Your task to perform on an android device: toggle priority inbox in the gmail app Image 0: 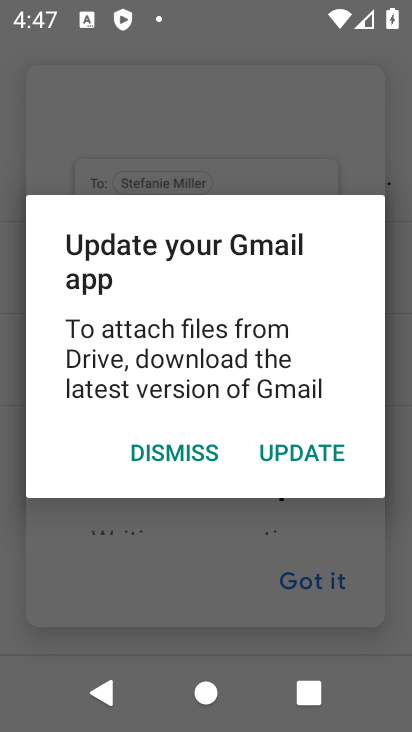
Step 0: press home button
Your task to perform on an android device: toggle priority inbox in the gmail app Image 1: 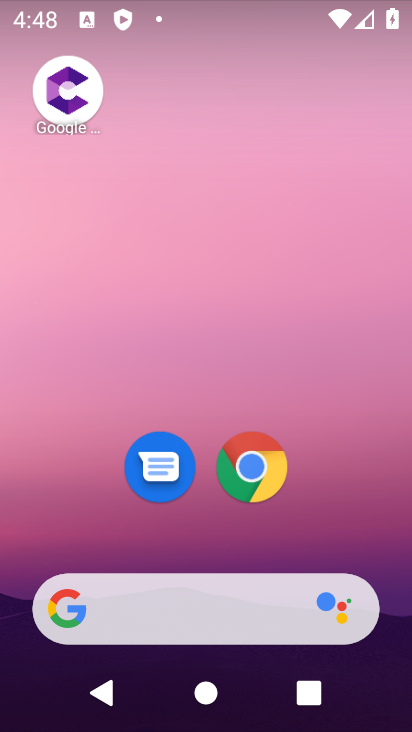
Step 1: drag from (221, 516) to (230, 54)
Your task to perform on an android device: toggle priority inbox in the gmail app Image 2: 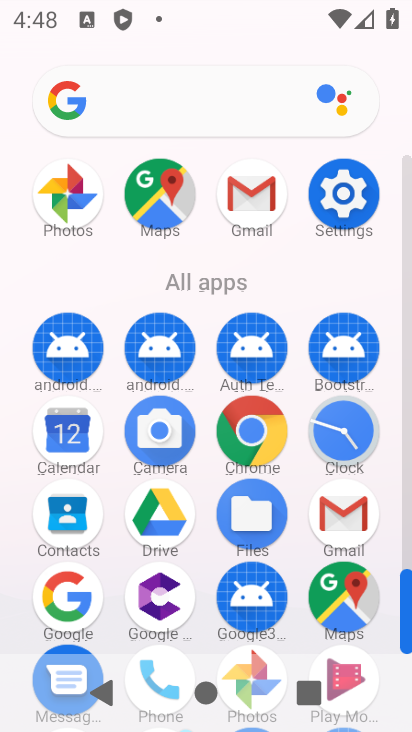
Step 2: click (335, 527)
Your task to perform on an android device: toggle priority inbox in the gmail app Image 3: 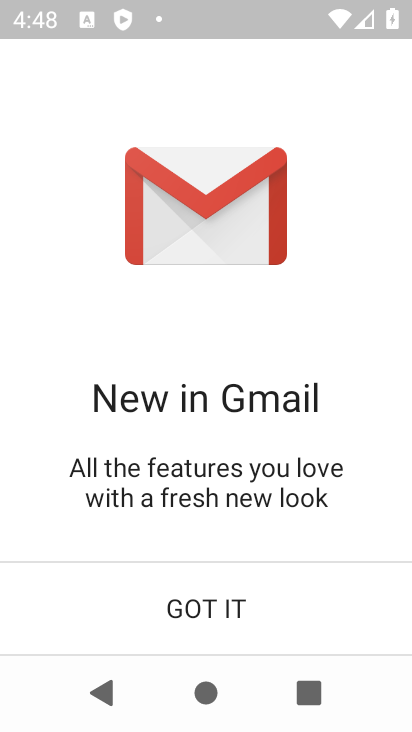
Step 3: click (248, 609)
Your task to perform on an android device: toggle priority inbox in the gmail app Image 4: 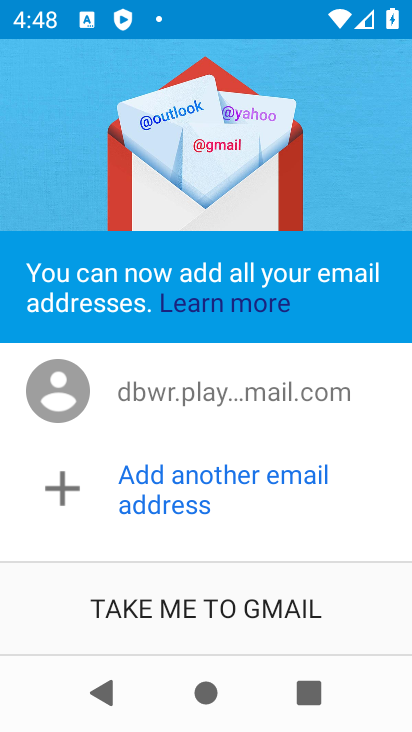
Step 4: click (260, 604)
Your task to perform on an android device: toggle priority inbox in the gmail app Image 5: 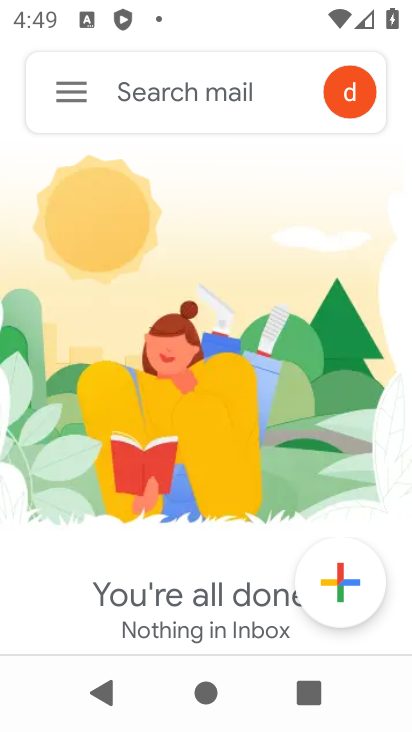
Step 5: click (68, 96)
Your task to perform on an android device: toggle priority inbox in the gmail app Image 6: 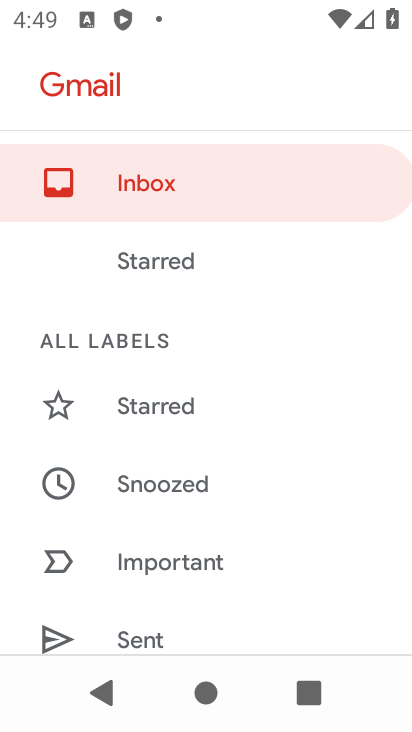
Step 6: drag from (170, 718) to (294, 120)
Your task to perform on an android device: toggle priority inbox in the gmail app Image 7: 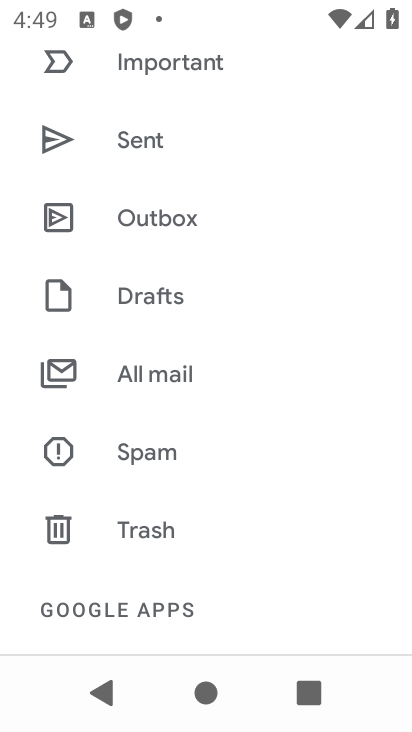
Step 7: drag from (247, 544) to (349, 155)
Your task to perform on an android device: toggle priority inbox in the gmail app Image 8: 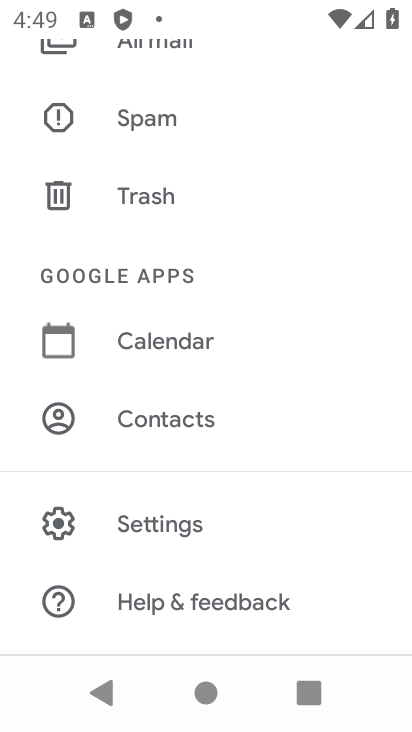
Step 8: click (157, 525)
Your task to perform on an android device: toggle priority inbox in the gmail app Image 9: 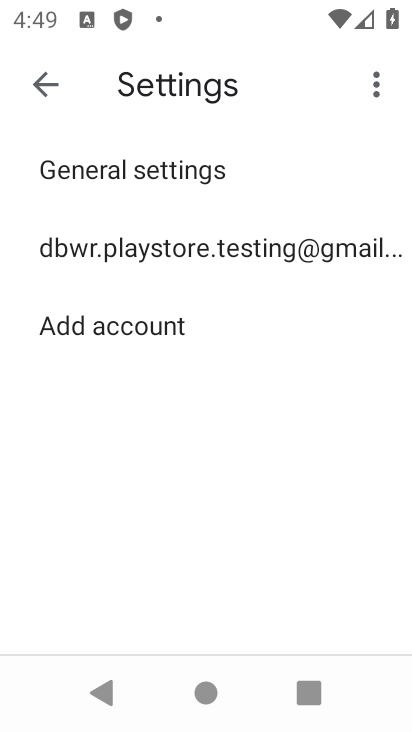
Step 9: click (191, 253)
Your task to perform on an android device: toggle priority inbox in the gmail app Image 10: 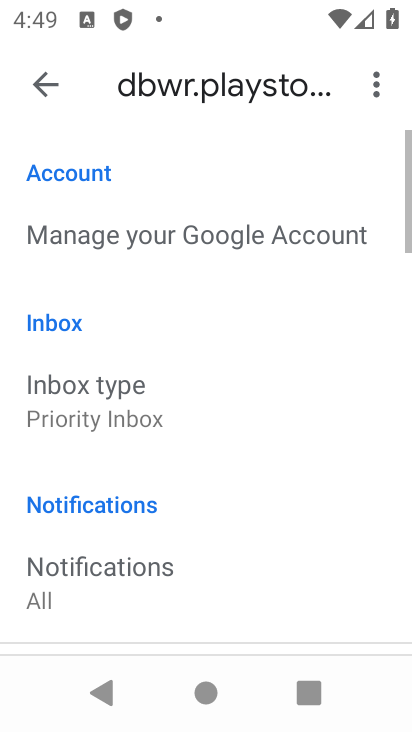
Step 10: drag from (205, 575) to (205, 402)
Your task to perform on an android device: toggle priority inbox in the gmail app Image 11: 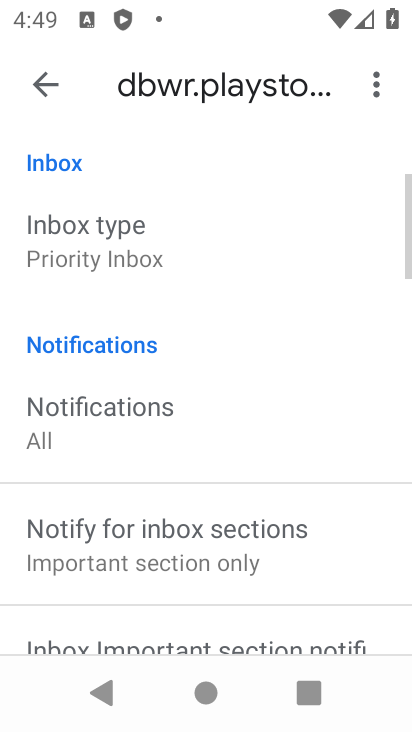
Step 11: click (211, 287)
Your task to perform on an android device: toggle priority inbox in the gmail app Image 12: 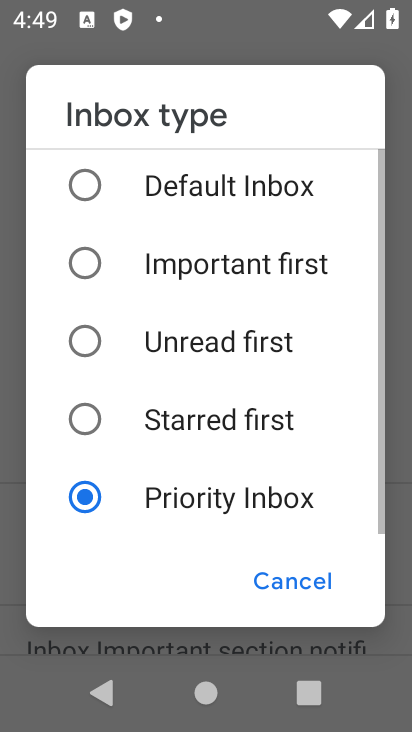
Step 12: click (138, 266)
Your task to perform on an android device: toggle priority inbox in the gmail app Image 13: 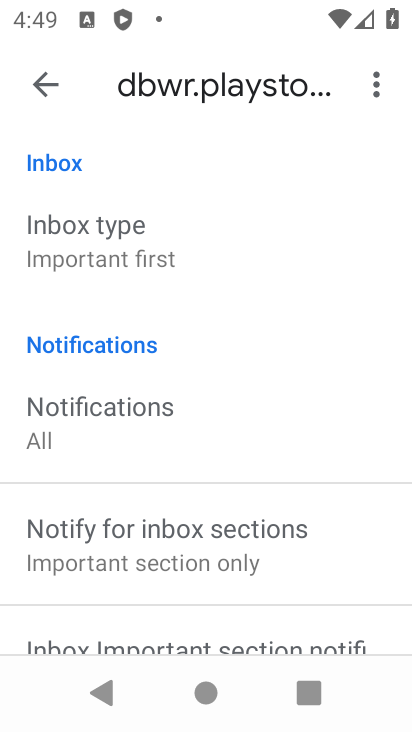
Step 13: task complete